Your task to perform on an android device: change notification settings in the gmail app Image 0: 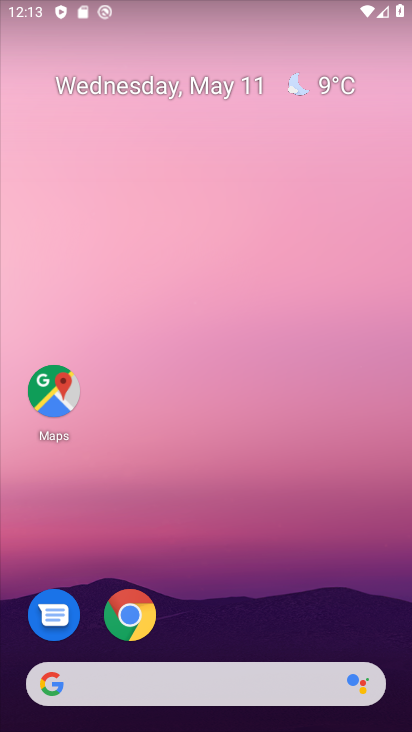
Step 0: drag from (302, 639) to (303, 127)
Your task to perform on an android device: change notification settings in the gmail app Image 1: 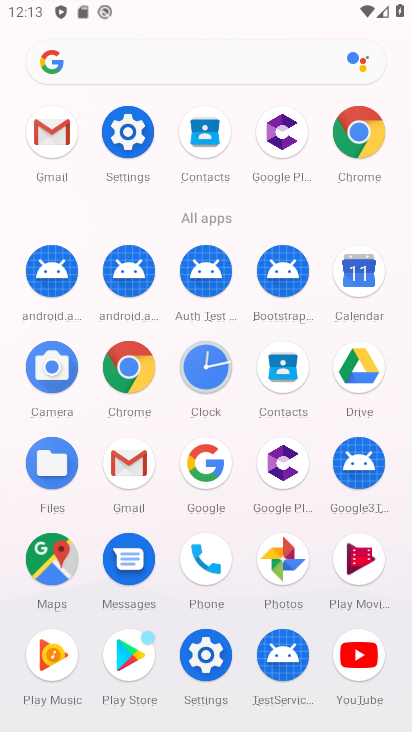
Step 1: click (135, 463)
Your task to perform on an android device: change notification settings in the gmail app Image 2: 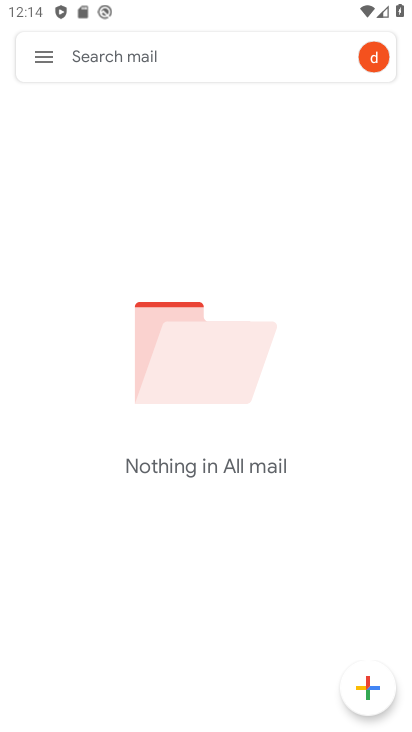
Step 2: click (29, 78)
Your task to perform on an android device: change notification settings in the gmail app Image 3: 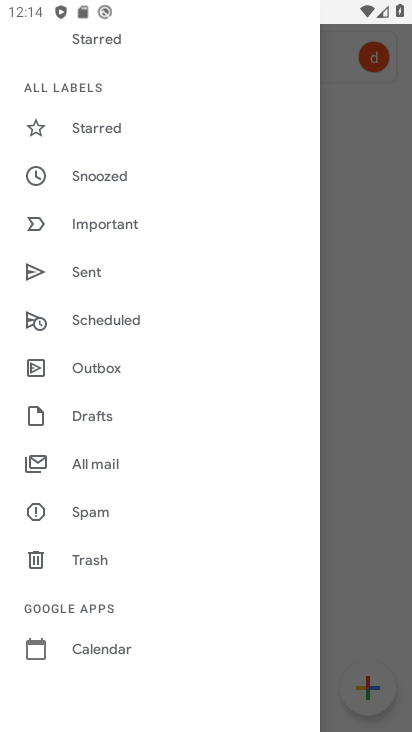
Step 3: drag from (81, 643) to (82, 227)
Your task to perform on an android device: change notification settings in the gmail app Image 4: 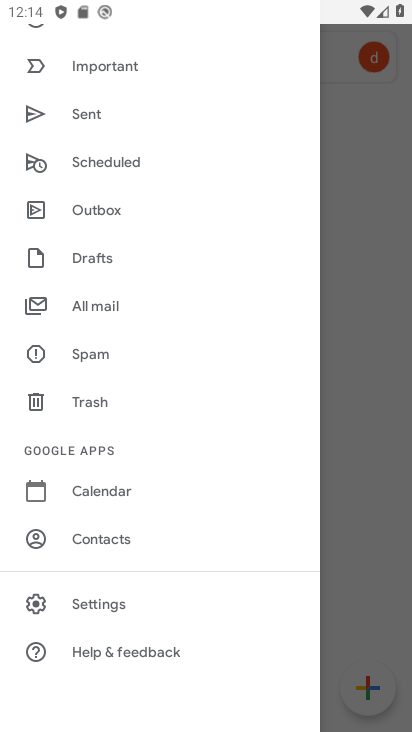
Step 4: click (135, 606)
Your task to perform on an android device: change notification settings in the gmail app Image 5: 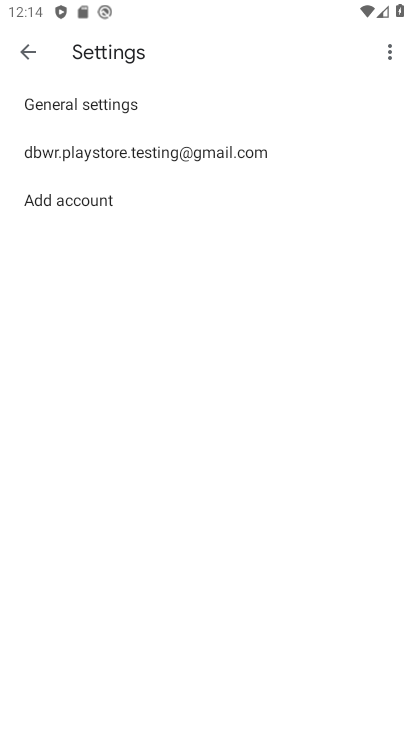
Step 5: click (136, 106)
Your task to perform on an android device: change notification settings in the gmail app Image 6: 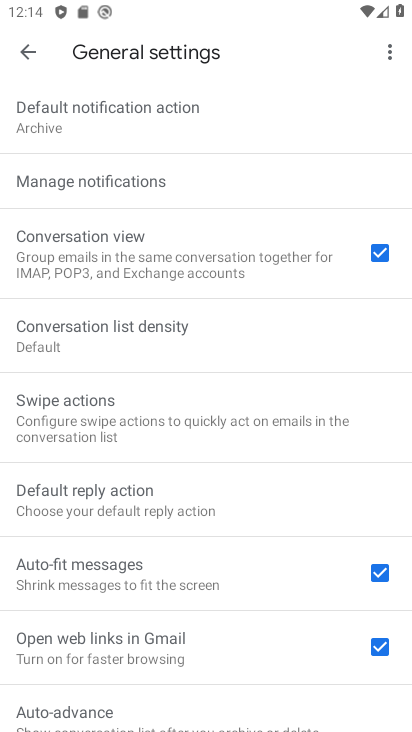
Step 6: click (151, 177)
Your task to perform on an android device: change notification settings in the gmail app Image 7: 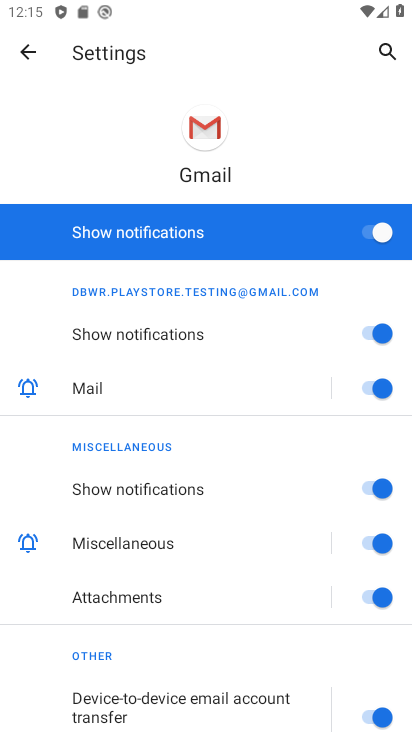
Step 7: click (221, 250)
Your task to perform on an android device: change notification settings in the gmail app Image 8: 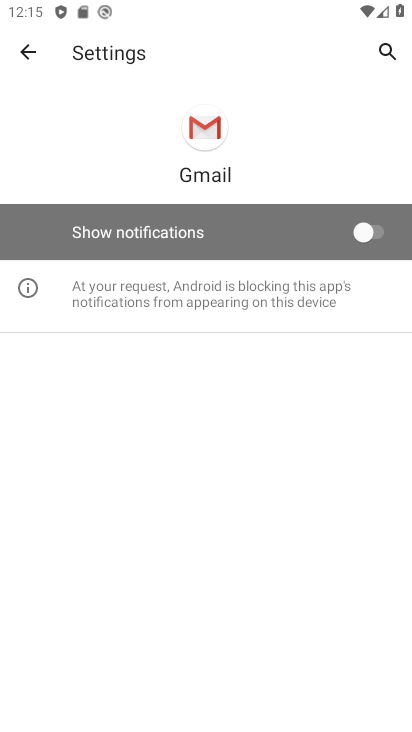
Step 8: task complete